Your task to perform on an android device: install app "Clock" Image 0: 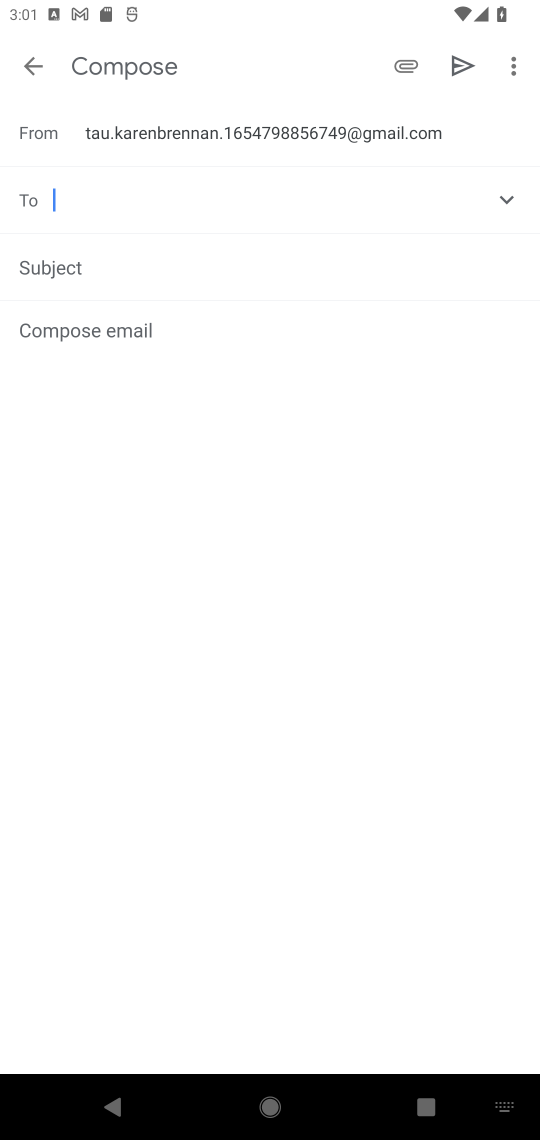
Step 0: press home button
Your task to perform on an android device: install app "Clock" Image 1: 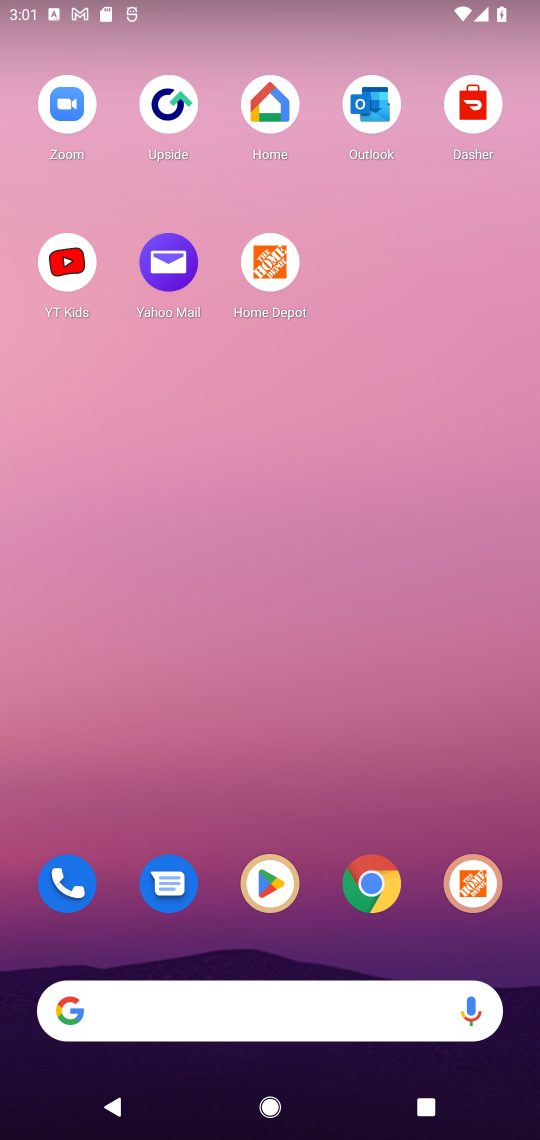
Step 1: drag from (245, 981) to (188, 291)
Your task to perform on an android device: install app "Clock" Image 2: 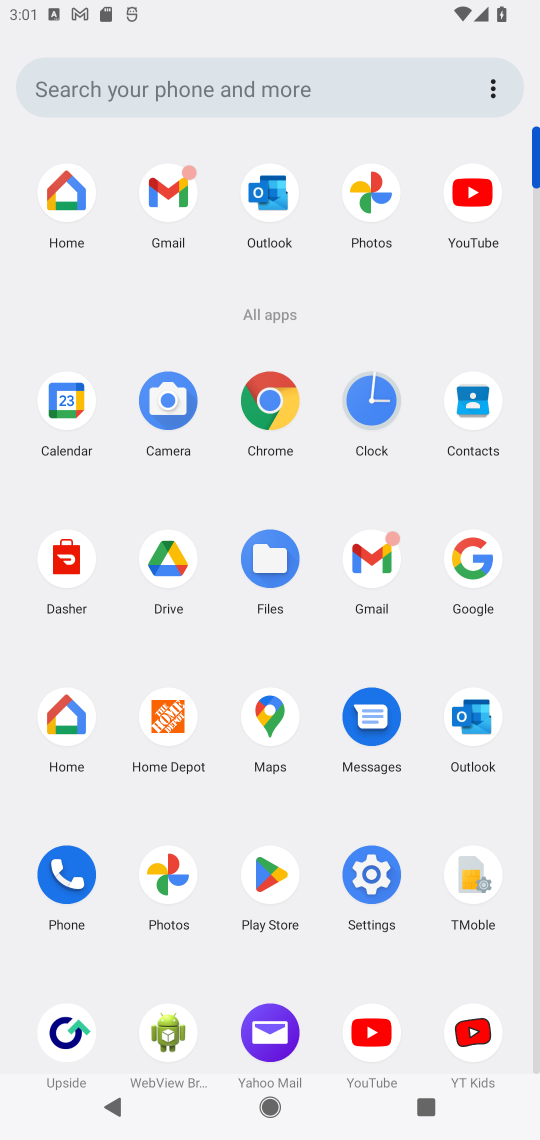
Step 2: click (391, 400)
Your task to perform on an android device: install app "Clock" Image 3: 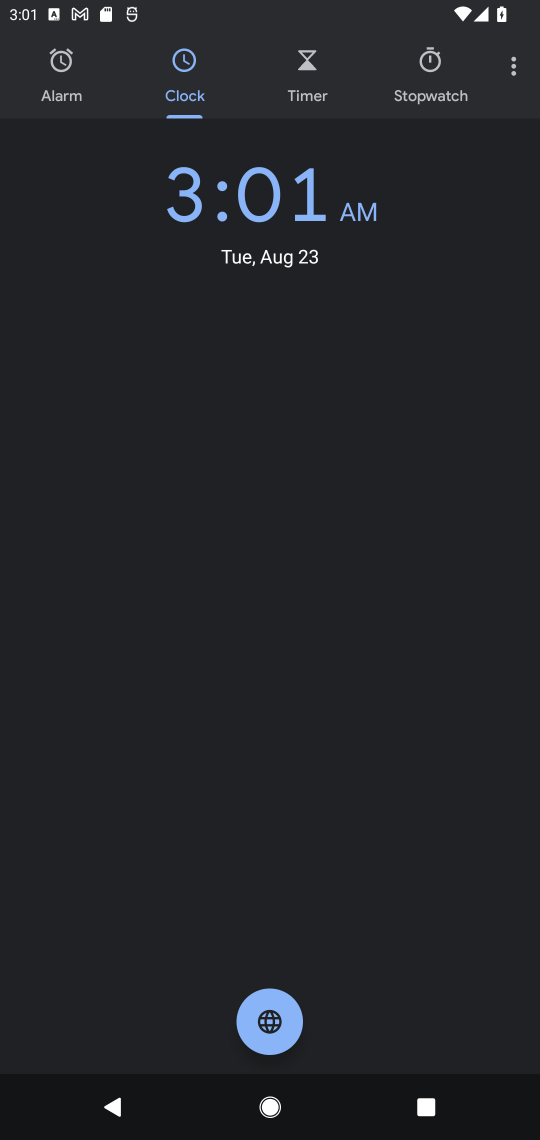
Step 3: task complete